Your task to perform on an android device: toggle notification dots Image 0: 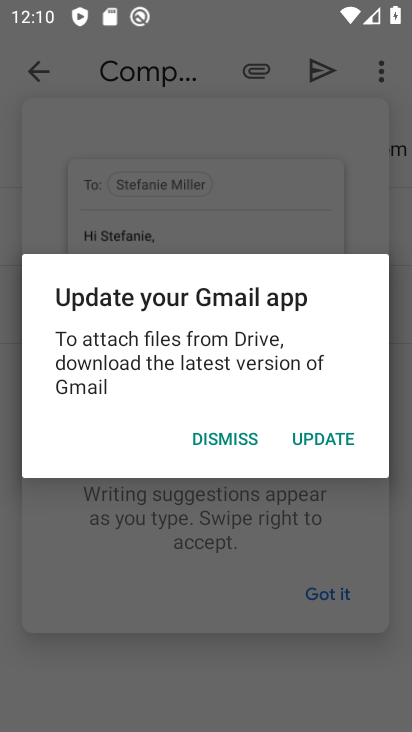
Step 0: press home button
Your task to perform on an android device: toggle notification dots Image 1: 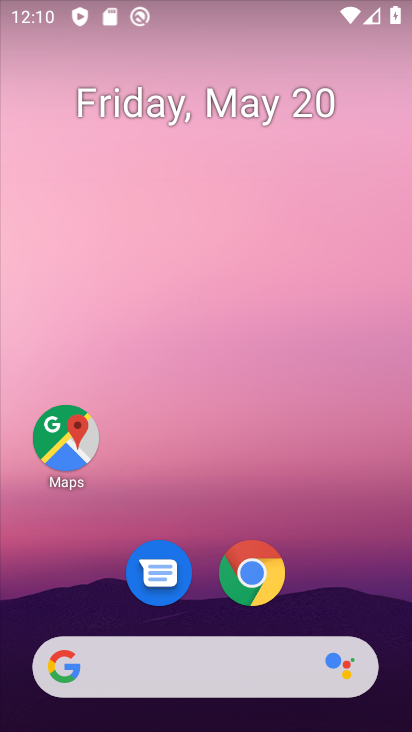
Step 1: drag from (336, 574) to (208, 84)
Your task to perform on an android device: toggle notification dots Image 2: 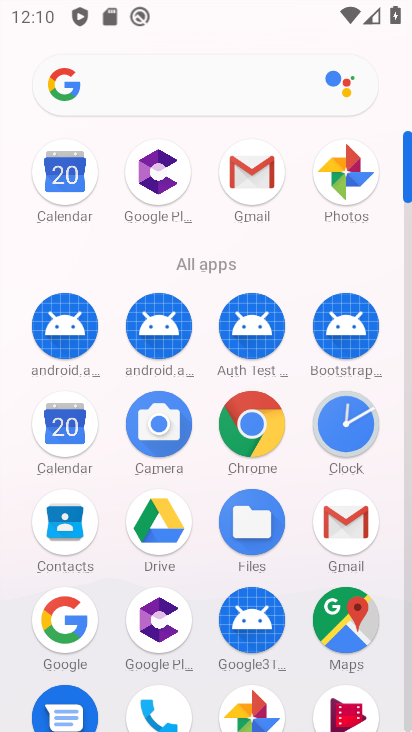
Step 2: drag from (210, 570) to (180, 196)
Your task to perform on an android device: toggle notification dots Image 3: 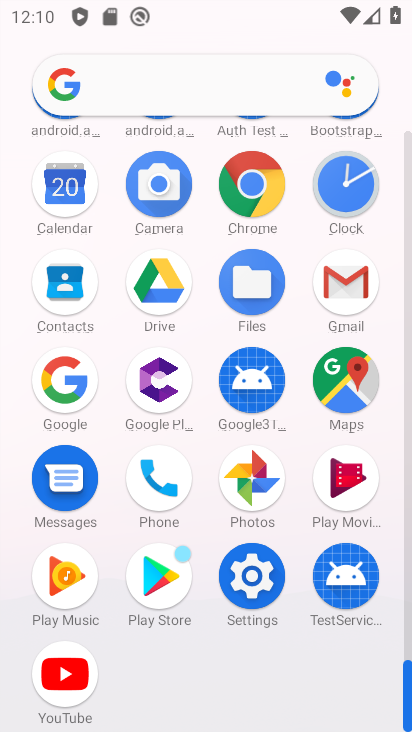
Step 3: click (250, 577)
Your task to perform on an android device: toggle notification dots Image 4: 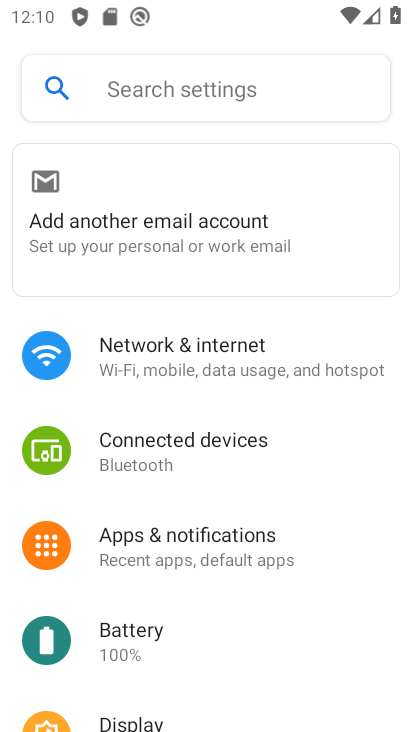
Step 4: click (199, 526)
Your task to perform on an android device: toggle notification dots Image 5: 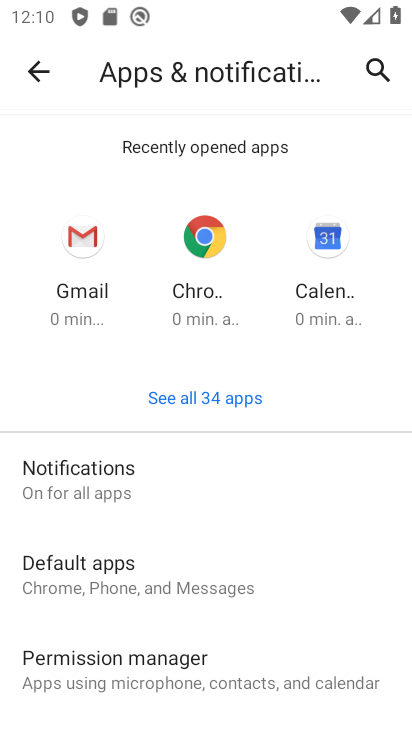
Step 5: drag from (186, 516) to (151, 182)
Your task to perform on an android device: toggle notification dots Image 6: 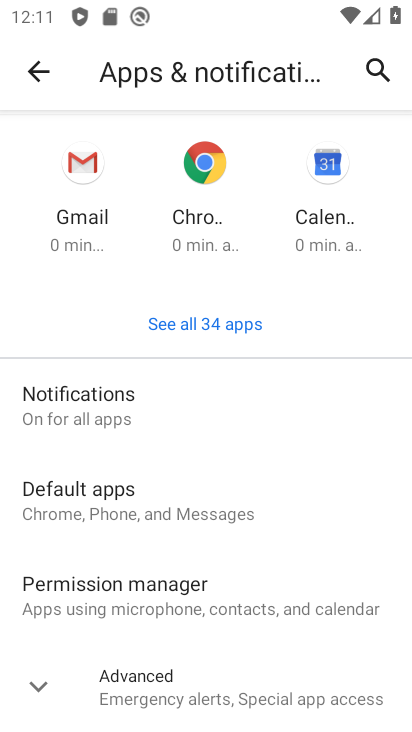
Step 6: click (61, 401)
Your task to perform on an android device: toggle notification dots Image 7: 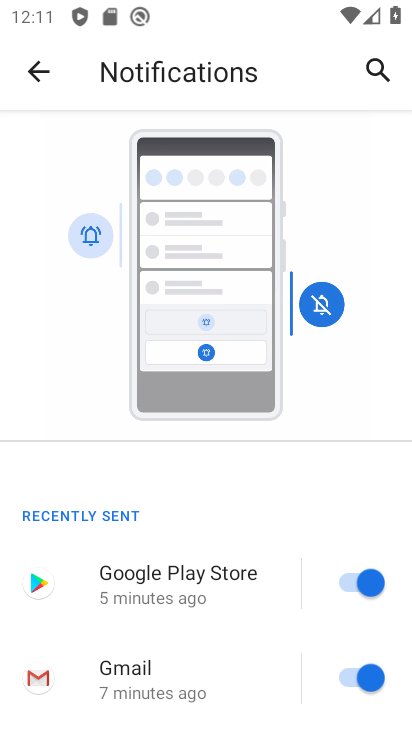
Step 7: drag from (260, 523) to (221, 209)
Your task to perform on an android device: toggle notification dots Image 8: 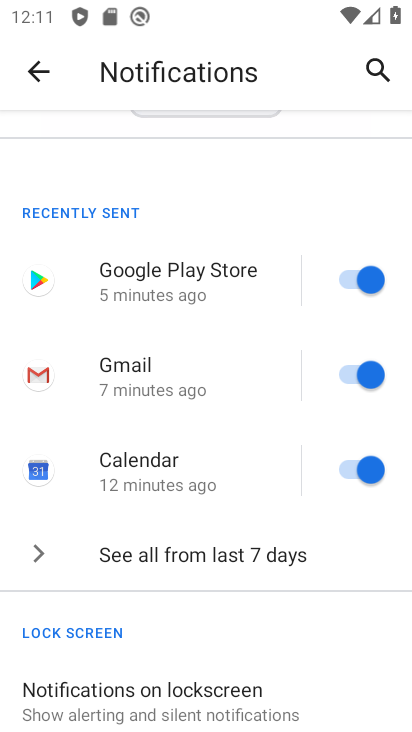
Step 8: drag from (261, 697) to (247, 446)
Your task to perform on an android device: toggle notification dots Image 9: 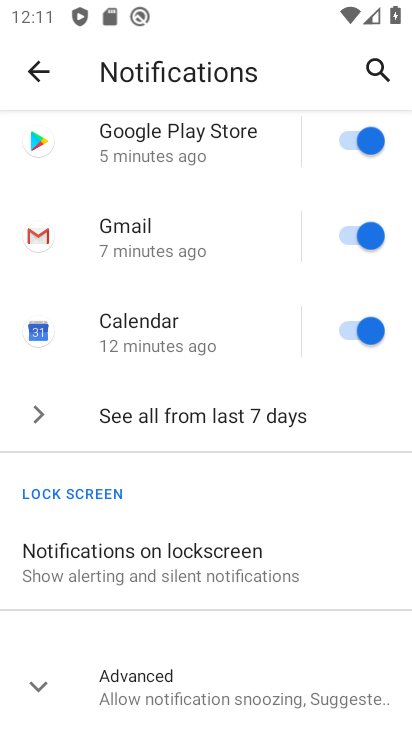
Step 9: click (38, 636)
Your task to perform on an android device: toggle notification dots Image 10: 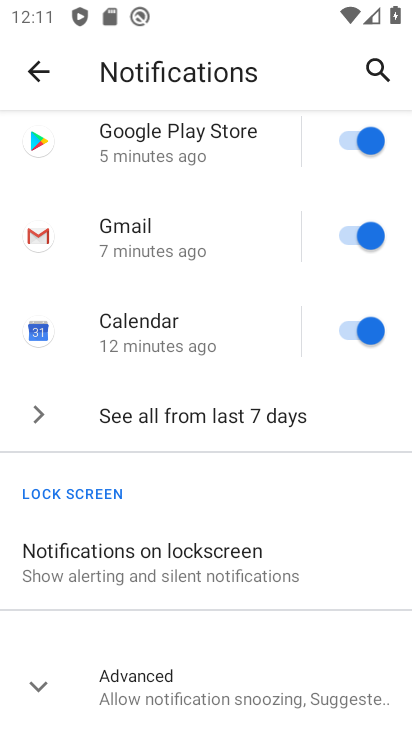
Step 10: click (42, 682)
Your task to perform on an android device: toggle notification dots Image 11: 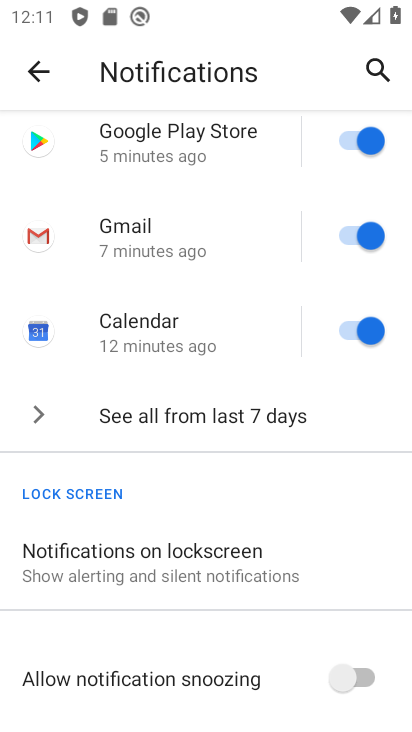
Step 11: drag from (193, 639) to (187, 348)
Your task to perform on an android device: toggle notification dots Image 12: 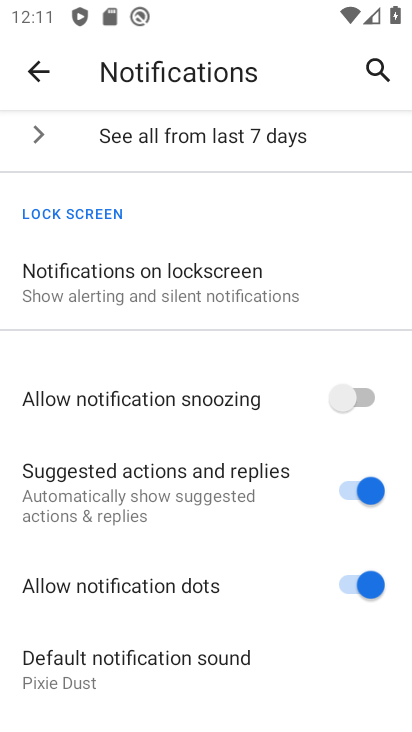
Step 12: click (356, 572)
Your task to perform on an android device: toggle notification dots Image 13: 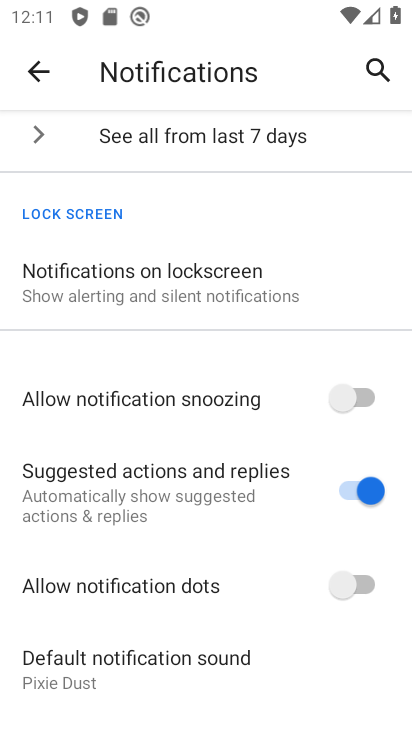
Step 13: task complete